Your task to perform on an android device: Open battery settings Image 0: 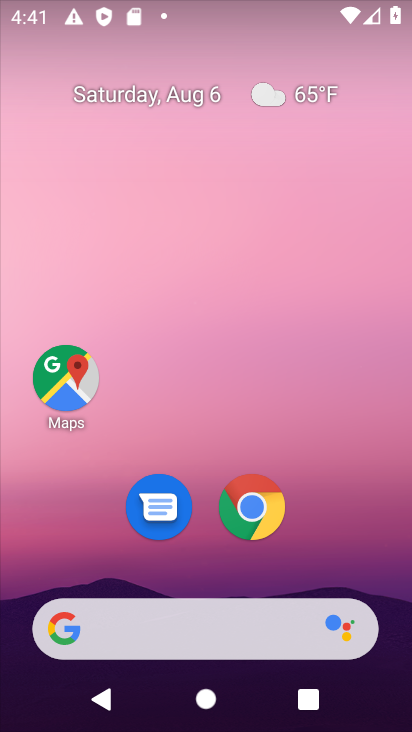
Step 0: press home button
Your task to perform on an android device: Open battery settings Image 1: 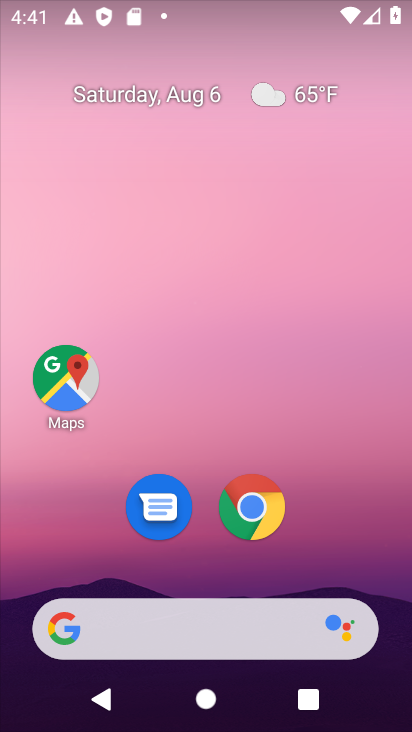
Step 1: drag from (335, 523) to (365, 118)
Your task to perform on an android device: Open battery settings Image 2: 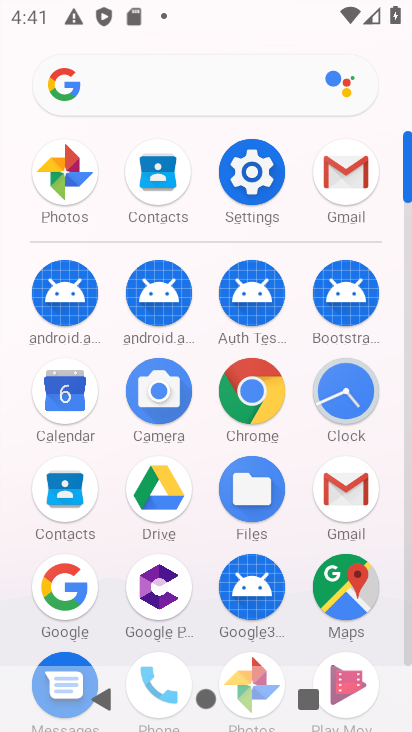
Step 2: click (254, 178)
Your task to perform on an android device: Open battery settings Image 3: 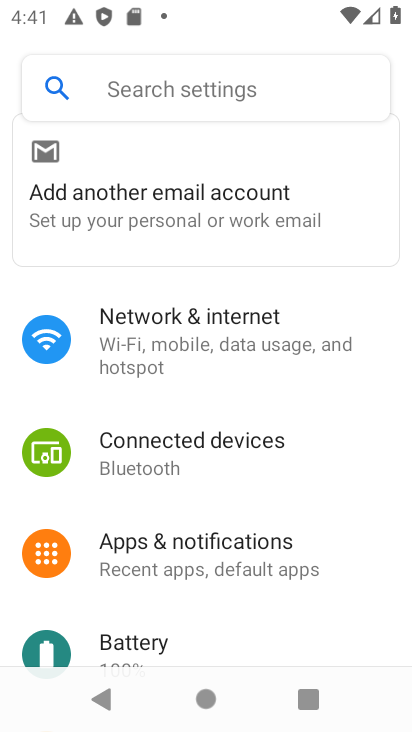
Step 3: drag from (186, 555) to (223, 226)
Your task to perform on an android device: Open battery settings Image 4: 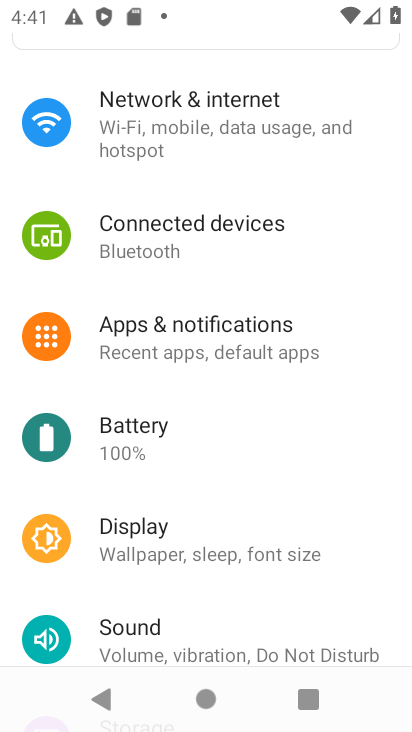
Step 4: click (131, 444)
Your task to perform on an android device: Open battery settings Image 5: 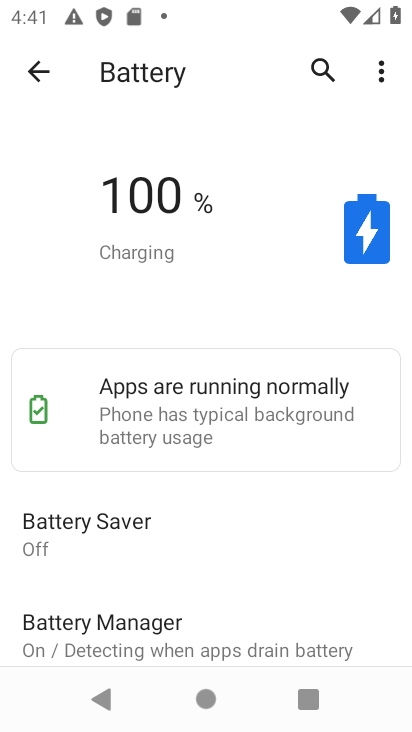
Step 5: task complete